Your task to perform on an android device: Clear the shopping cart on target. Search for apple airpods pro on target, select the first entry, add it to the cart, then select checkout. Image 0: 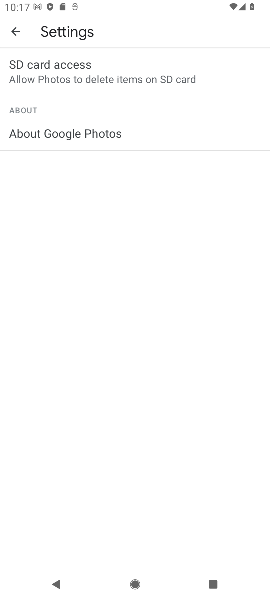
Step 0: press home button
Your task to perform on an android device: Clear the shopping cart on target. Search for apple airpods pro on target, select the first entry, add it to the cart, then select checkout. Image 1: 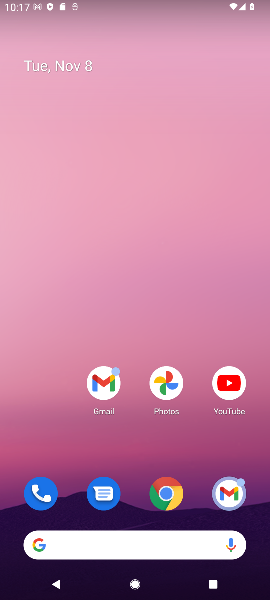
Step 1: click (166, 494)
Your task to perform on an android device: Clear the shopping cart on target. Search for apple airpods pro on target, select the first entry, add it to the cart, then select checkout. Image 2: 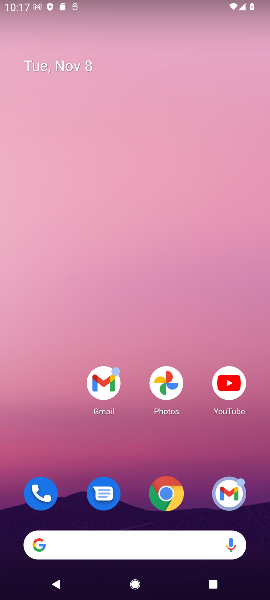
Step 2: click (166, 494)
Your task to perform on an android device: Clear the shopping cart on target. Search for apple airpods pro on target, select the first entry, add it to the cart, then select checkout. Image 3: 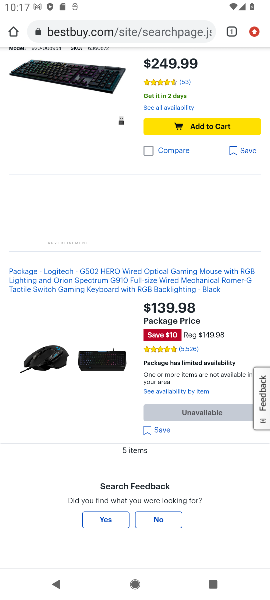
Step 3: click (115, 31)
Your task to perform on an android device: Clear the shopping cart on target. Search for apple airpods pro on target, select the first entry, add it to the cart, then select checkout. Image 4: 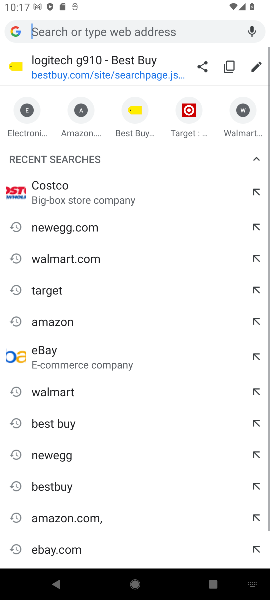
Step 4: click (184, 131)
Your task to perform on an android device: Clear the shopping cart on target. Search for apple airpods pro on target, select the first entry, add it to the cart, then select checkout. Image 5: 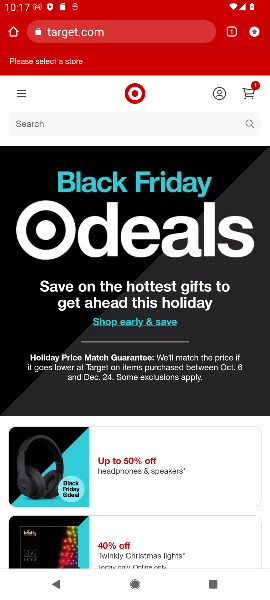
Step 5: click (246, 95)
Your task to perform on an android device: Clear the shopping cart on target. Search for apple airpods pro on target, select the first entry, add it to the cart, then select checkout. Image 6: 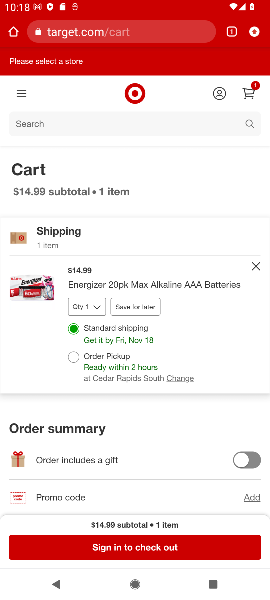
Step 6: click (255, 266)
Your task to perform on an android device: Clear the shopping cart on target. Search for apple airpods pro on target, select the first entry, add it to the cart, then select checkout. Image 7: 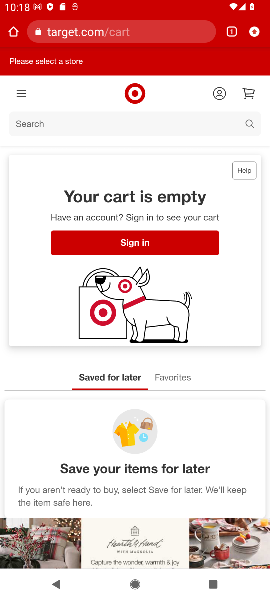
Step 7: click (249, 126)
Your task to perform on an android device: Clear the shopping cart on target. Search for apple airpods pro on target, select the first entry, add it to the cart, then select checkout. Image 8: 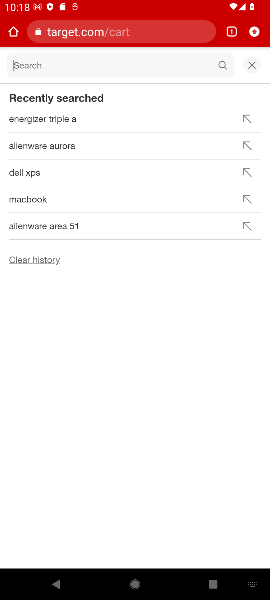
Step 8: type "apple airpods pro"
Your task to perform on an android device: Clear the shopping cart on target. Search for apple airpods pro on target, select the first entry, add it to the cart, then select checkout. Image 9: 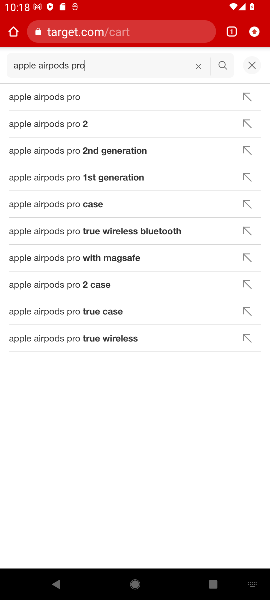
Step 9: click (42, 100)
Your task to perform on an android device: Clear the shopping cart on target. Search for apple airpods pro on target, select the first entry, add it to the cart, then select checkout. Image 10: 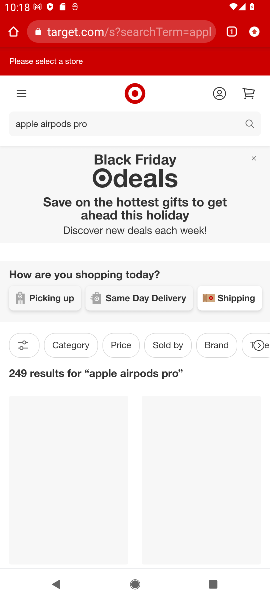
Step 10: drag from (91, 359) to (84, 183)
Your task to perform on an android device: Clear the shopping cart on target. Search for apple airpods pro on target, select the first entry, add it to the cart, then select checkout. Image 11: 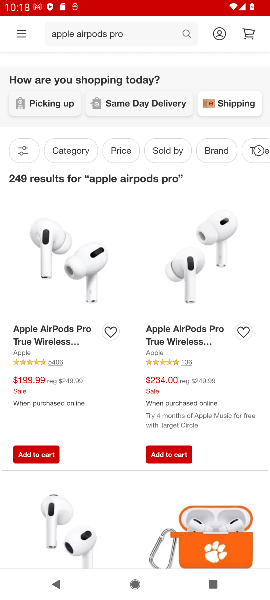
Step 11: click (45, 273)
Your task to perform on an android device: Clear the shopping cart on target. Search for apple airpods pro on target, select the first entry, add it to the cart, then select checkout. Image 12: 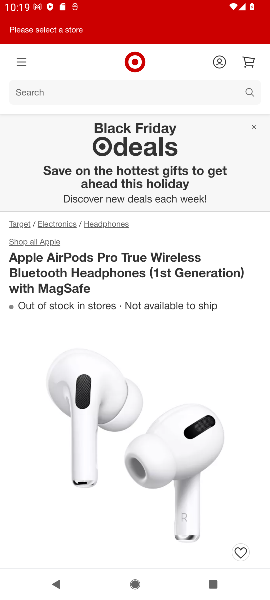
Step 12: drag from (114, 271) to (104, 187)
Your task to perform on an android device: Clear the shopping cart on target. Search for apple airpods pro on target, select the first entry, add it to the cart, then select checkout. Image 13: 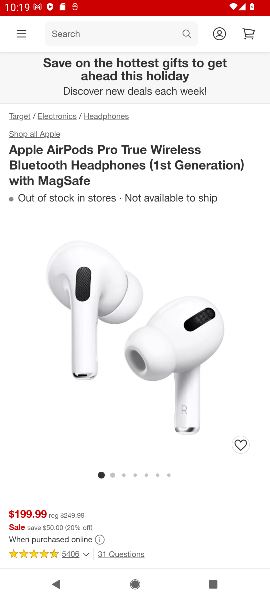
Step 13: drag from (107, 449) to (82, 284)
Your task to perform on an android device: Clear the shopping cart on target. Search for apple airpods pro on target, select the first entry, add it to the cart, then select checkout. Image 14: 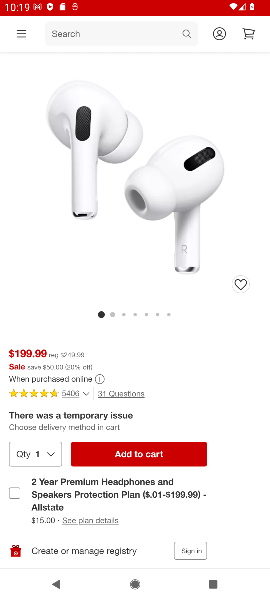
Step 14: click (124, 460)
Your task to perform on an android device: Clear the shopping cart on target. Search for apple airpods pro on target, select the first entry, add it to the cart, then select checkout. Image 15: 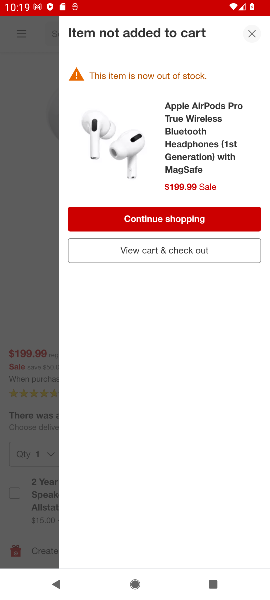
Step 15: click (155, 251)
Your task to perform on an android device: Clear the shopping cart on target. Search for apple airpods pro on target, select the first entry, add it to the cart, then select checkout. Image 16: 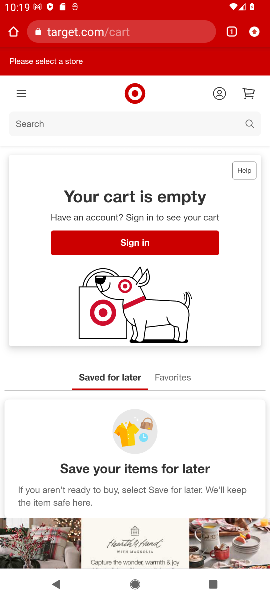
Step 16: press back button
Your task to perform on an android device: Clear the shopping cart on target. Search for apple airpods pro on target, select the first entry, add it to the cart, then select checkout. Image 17: 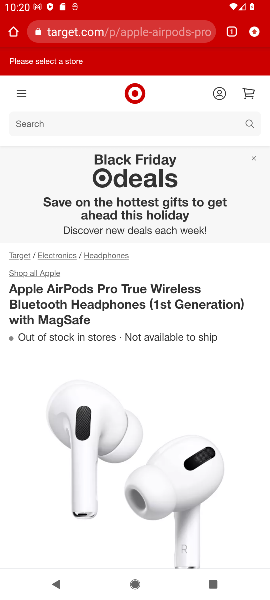
Step 17: click (245, 127)
Your task to perform on an android device: Clear the shopping cart on target. Search for apple airpods pro on target, select the first entry, add it to the cart, then select checkout. Image 18: 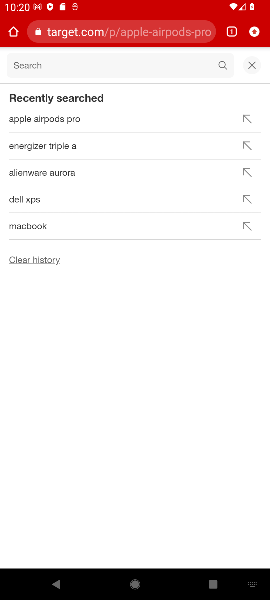
Step 18: type "apple airpods pro"
Your task to perform on an android device: Clear the shopping cart on target. Search for apple airpods pro on target, select the first entry, add it to the cart, then select checkout. Image 19: 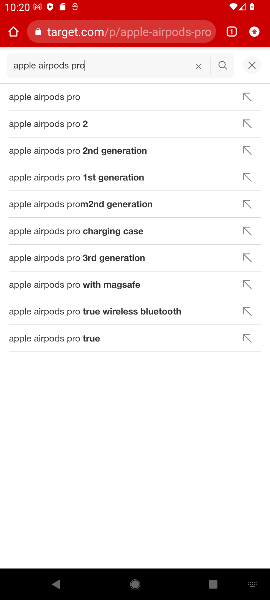
Step 19: click (57, 100)
Your task to perform on an android device: Clear the shopping cart on target. Search for apple airpods pro on target, select the first entry, add it to the cart, then select checkout. Image 20: 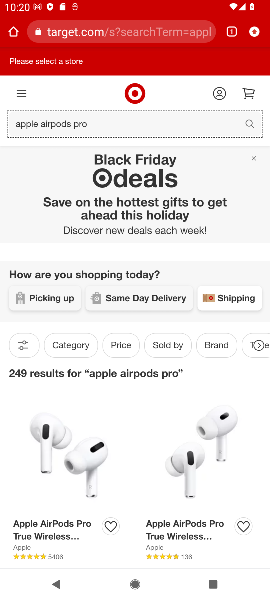
Step 20: drag from (131, 397) to (135, 254)
Your task to perform on an android device: Clear the shopping cart on target. Search for apple airpods pro on target, select the first entry, add it to the cart, then select checkout. Image 21: 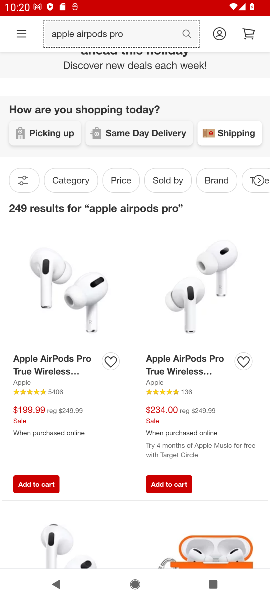
Step 21: click (43, 489)
Your task to perform on an android device: Clear the shopping cart on target. Search for apple airpods pro on target, select the first entry, add it to the cart, then select checkout. Image 22: 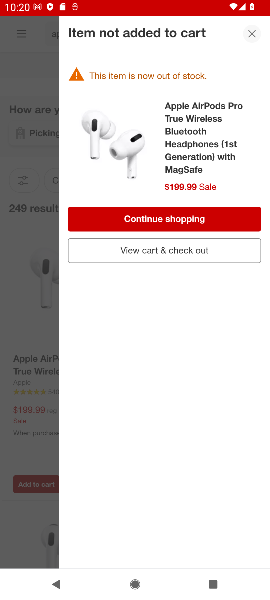
Step 22: click (155, 249)
Your task to perform on an android device: Clear the shopping cart on target. Search for apple airpods pro on target, select the first entry, add it to the cart, then select checkout. Image 23: 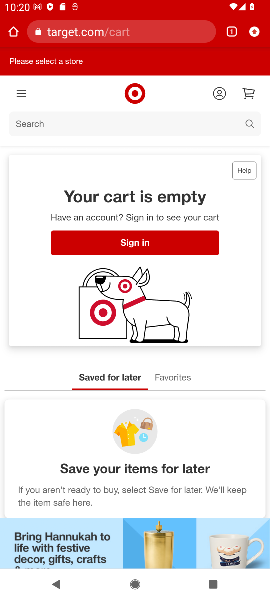
Step 23: task complete